Your task to perform on an android device: change timer sound Image 0: 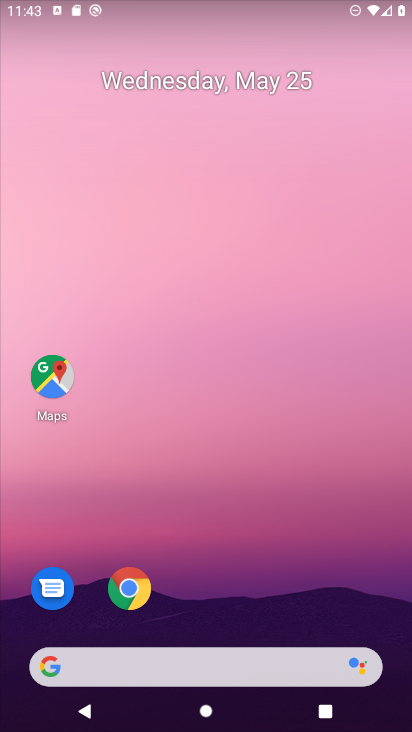
Step 0: press home button
Your task to perform on an android device: change timer sound Image 1: 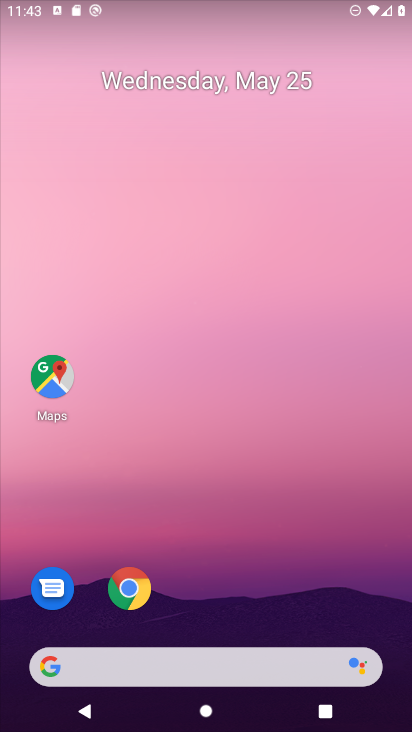
Step 1: drag from (23, 616) to (214, 216)
Your task to perform on an android device: change timer sound Image 2: 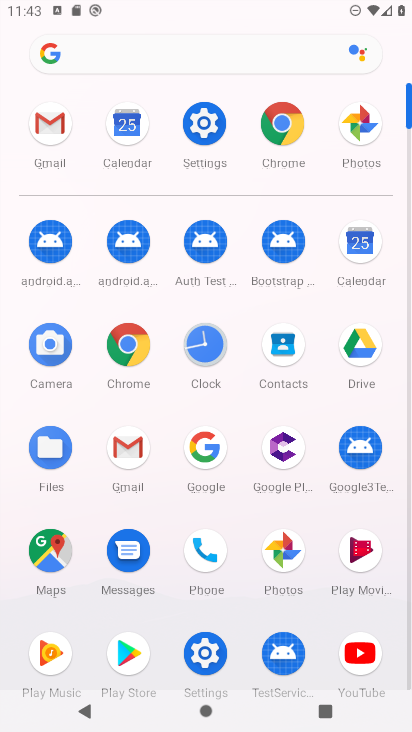
Step 2: click (194, 128)
Your task to perform on an android device: change timer sound Image 3: 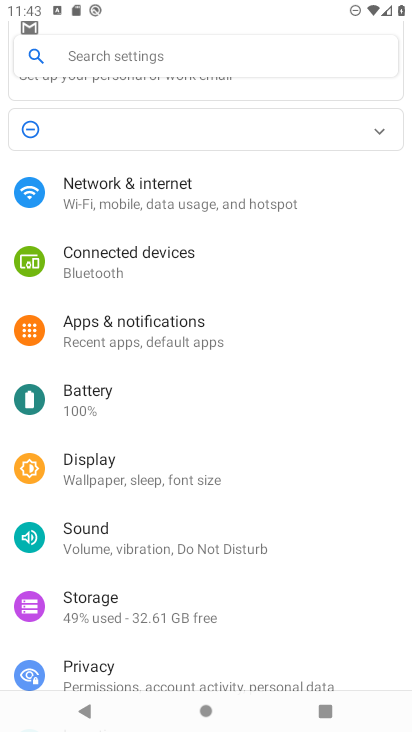
Step 3: press home button
Your task to perform on an android device: change timer sound Image 4: 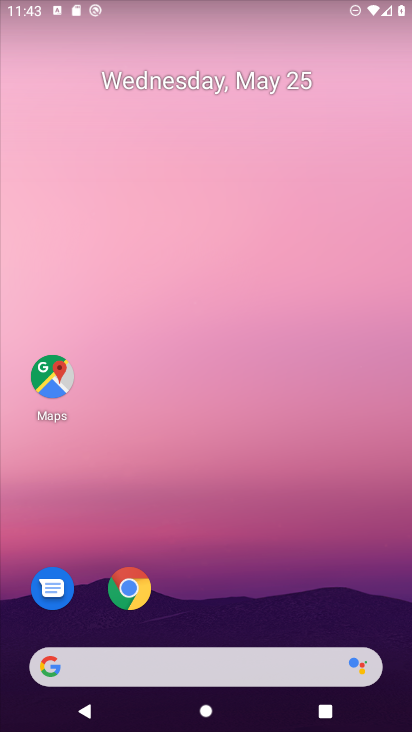
Step 4: drag from (25, 587) to (299, 124)
Your task to perform on an android device: change timer sound Image 5: 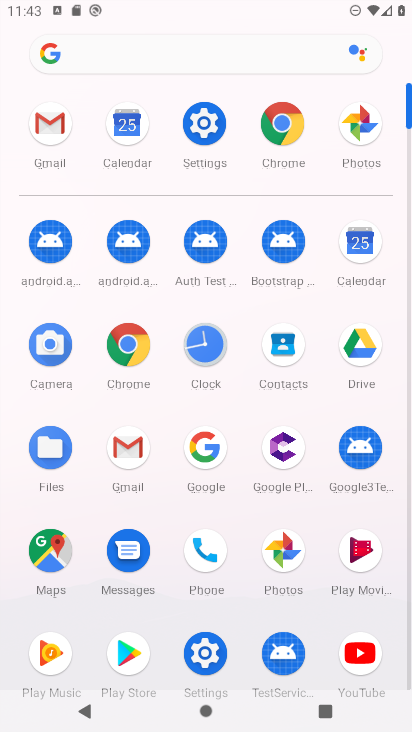
Step 5: click (204, 361)
Your task to perform on an android device: change timer sound Image 6: 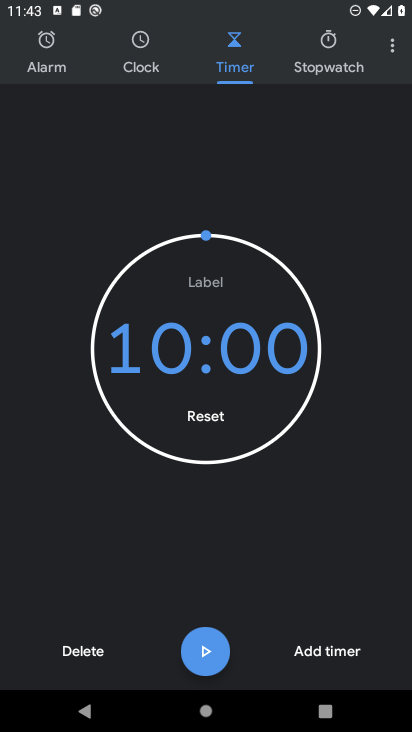
Step 6: click (392, 53)
Your task to perform on an android device: change timer sound Image 7: 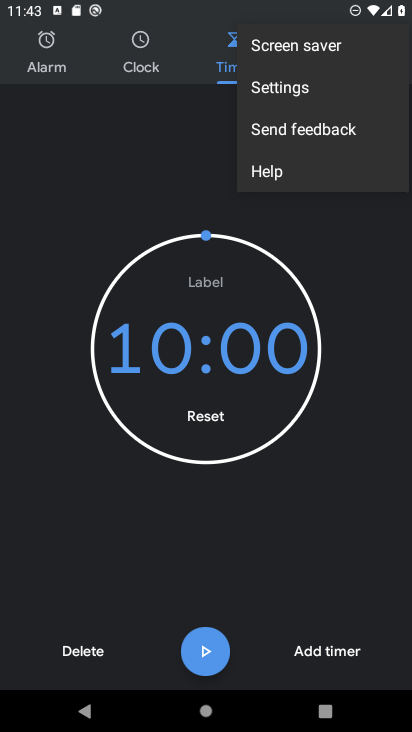
Step 7: click (286, 82)
Your task to perform on an android device: change timer sound Image 8: 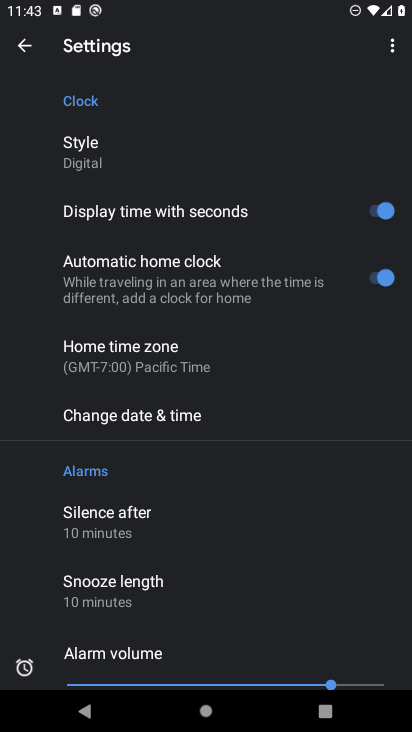
Step 8: drag from (18, 652) to (199, 276)
Your task to perform on an android device: change timer sound Image 9: 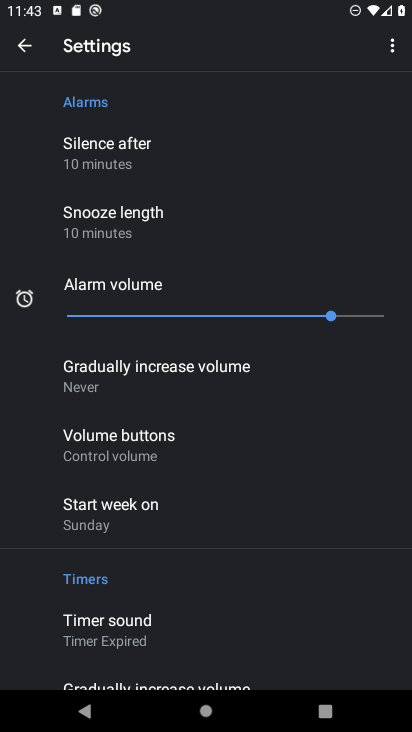
Step 9: click (99, 625)
Your task to perform on an android device: change timer sound Image 10: 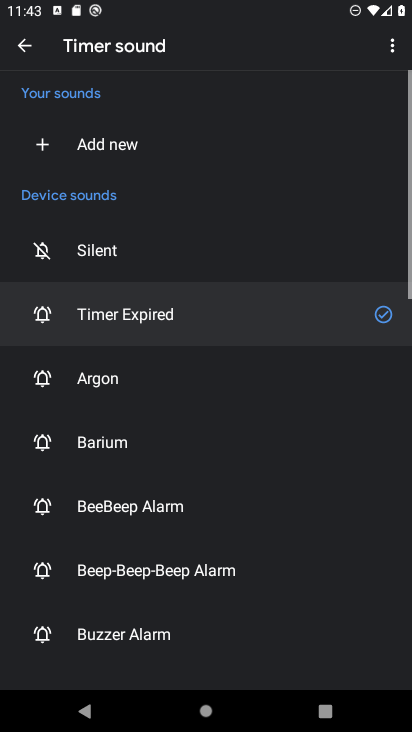
Step 10: click (105, 391)
Your task to perform on an android device: change timer sound Image 11: 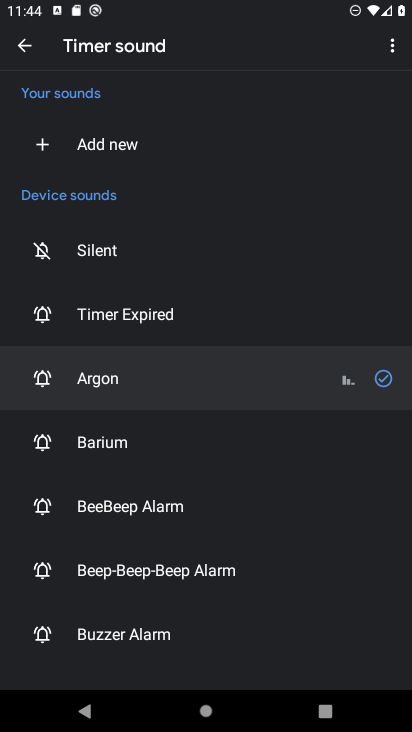
Step 11: task complete